Your task to perform on an android device: Go to privacy settings Image 0: 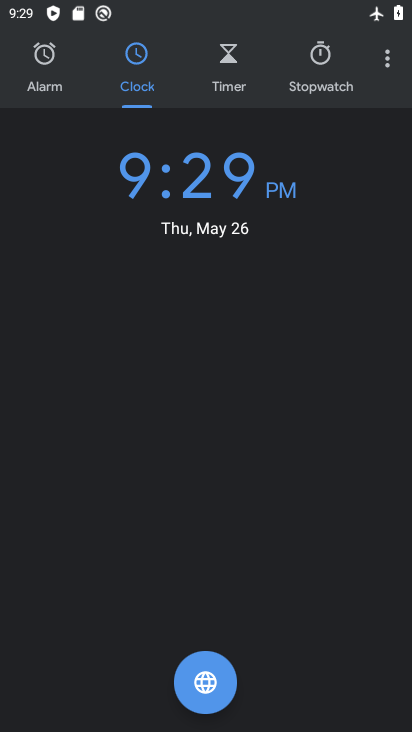
Step 0: press home button
Your task to perform on an android device: Go to privacy settings Image 1: 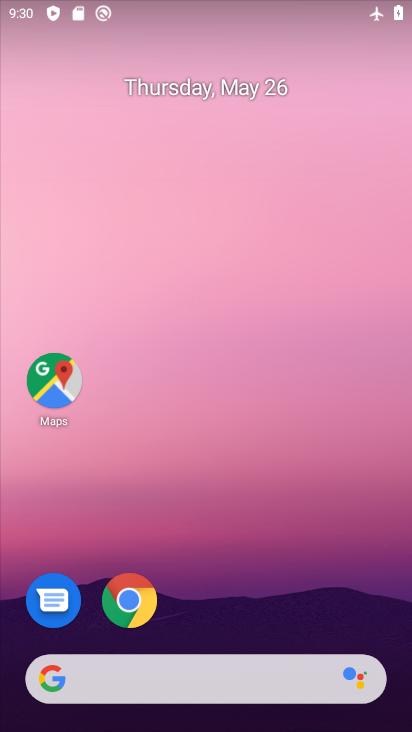
Step 1: drag from (211, 584) to (204, 173)
Your task to perform on an android device: Go to privacy settings Image 2: 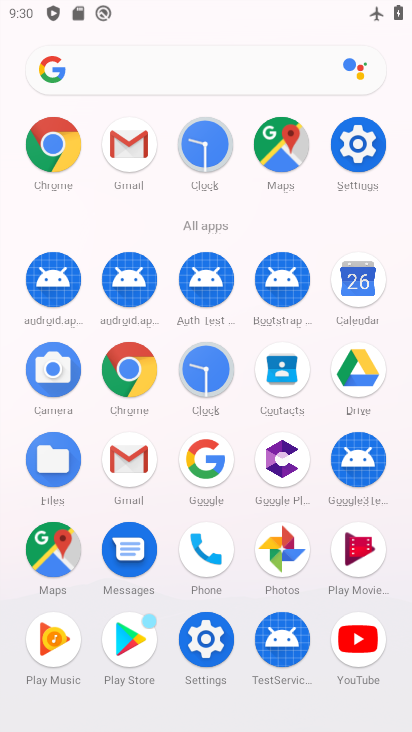
Step 2: click (363, 124)
Your task to perform on an android device: Go to privacy settings Image 3: 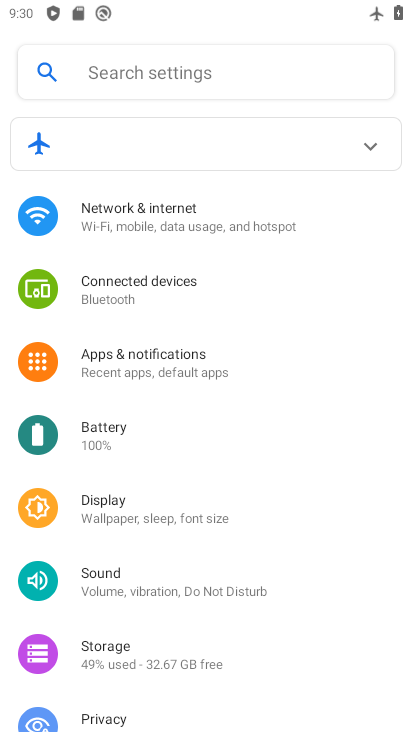
Step 3: drag from (141, 600) to (282, 121)
Your task to perform on an android device: Go to privacy settings Image 4: 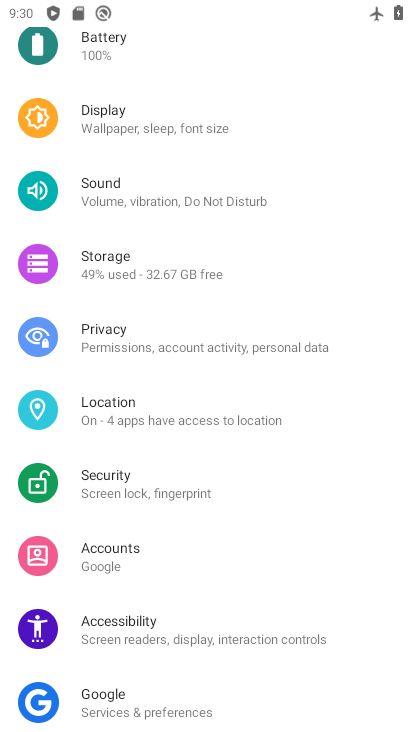
Step 4: drag from (222, 580) to (330, 170)
Your task to perform on an android device: Go to privacy settings Image 5: 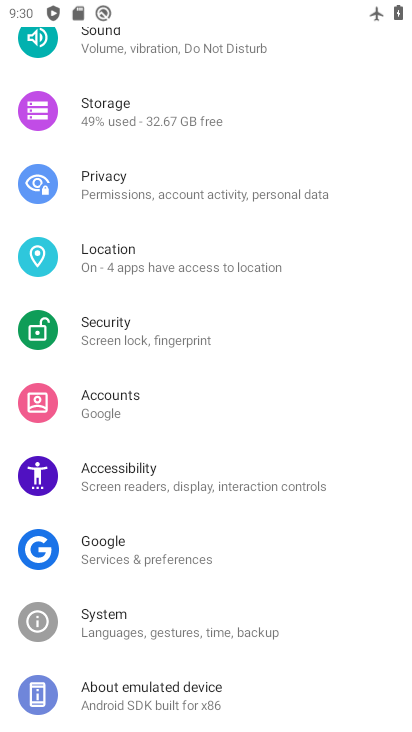
Step 5: click (158, 180)
Your task to perform on an android device: Go to privacy settings Image 6: 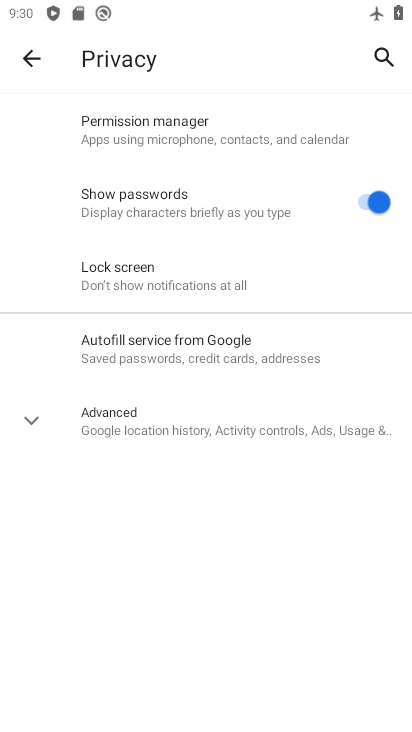
Step 6: task complete